Your task to perform on an android device: Go to Yahoo.com Image 0: 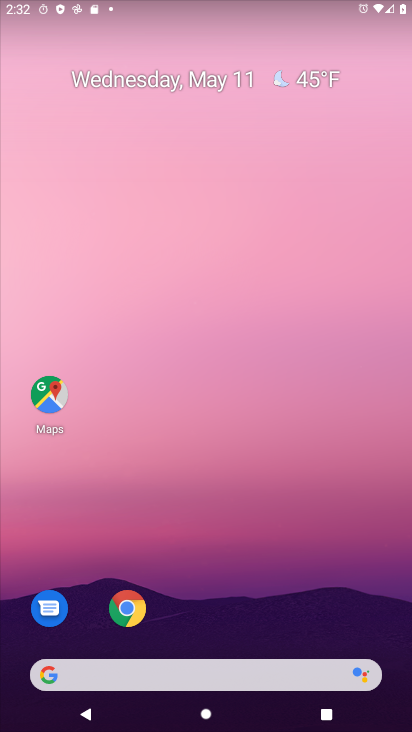
Step 0: click (125, 608)
Your task to perform on an android device: Go to Yahoo.com Image 1: 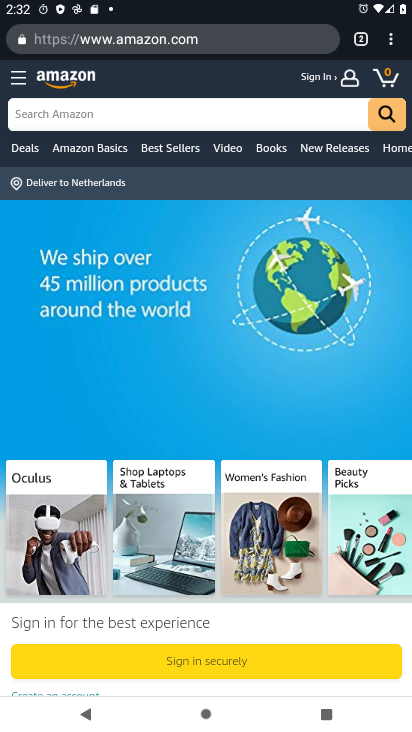
Step 1: press back button
Your task to perform on an android device: Go to Yahoo.com Image 2: 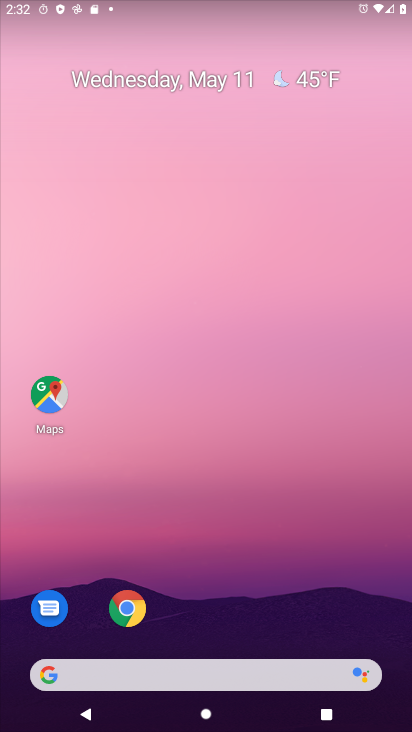
Step 2: click (123, 601)
Your task to perform on an android device: Go to Yahoo.com Image 3: 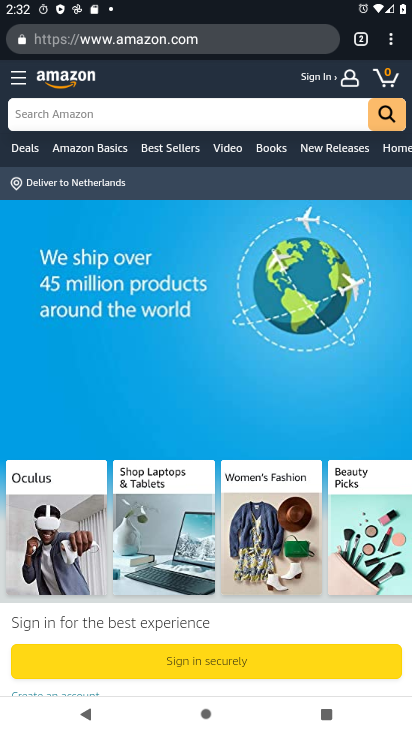
Step 3: click (364, 39)
Your task to perform on an android device: Go to Yahoo.com Image 4: 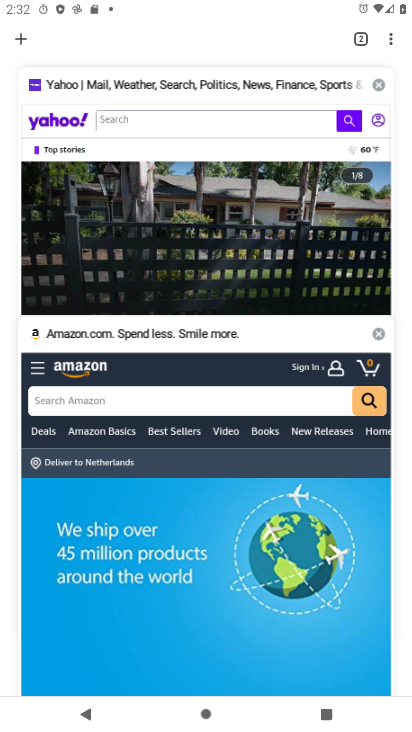
Step 4: click (125, 181)
Your task to perform on an android device: Go to Yahoo.com Image 5: 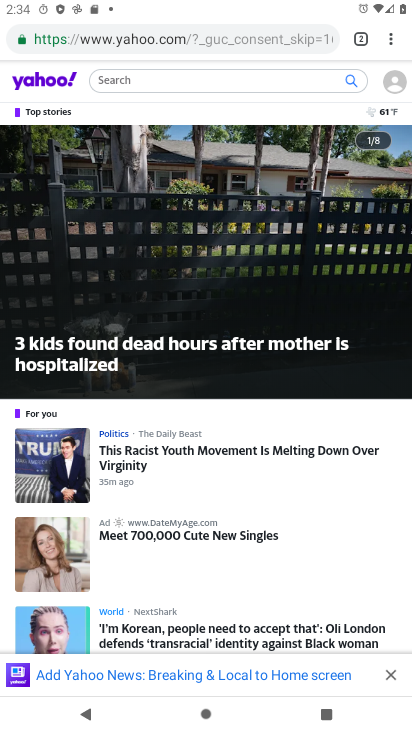
Step 5: task complete